Your task to perform on an android device: find which apps use the phone's location Image 0: 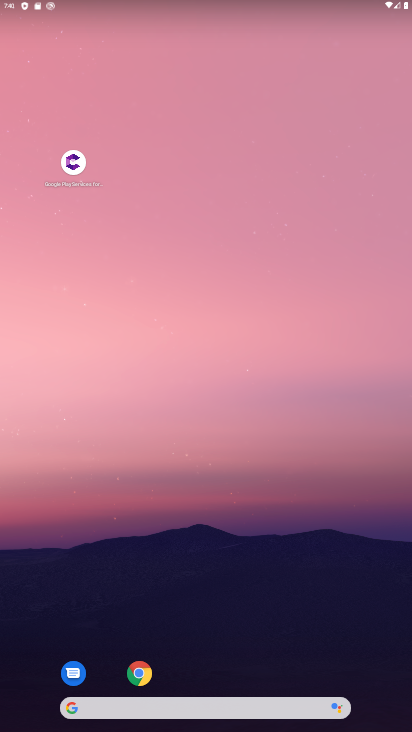
Step 0: drag from (177, 585) to (176, 320)
Your task to perform on an android device: find which apps use the phone's location Image 1: 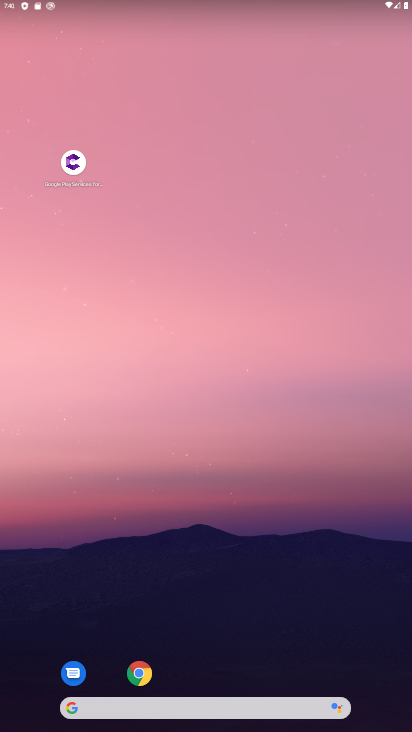
Step 1: drag from (185, 428) to (197, 16)
Your task to perform on an android device: find which apps use the phone's location Image 2: 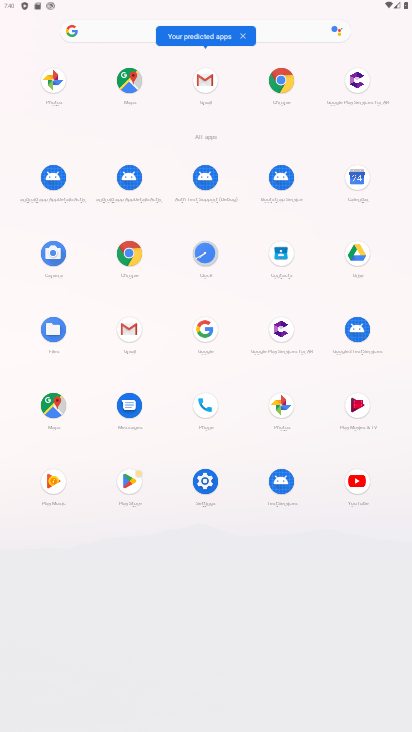
Step 2: click (201, 480)
Your task to perform on an android device: find which apps use the phone's location Image 3: 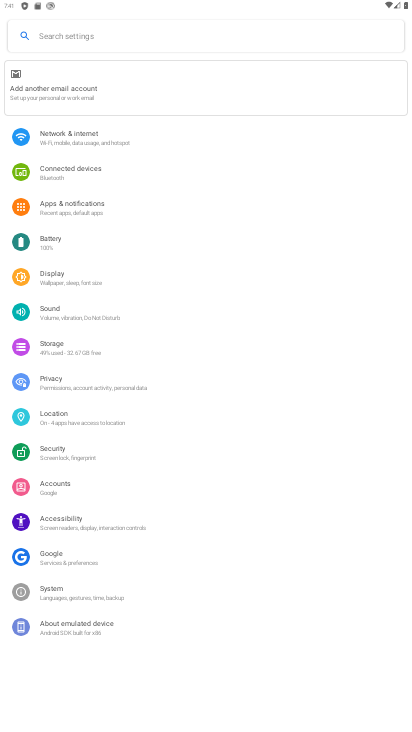
Step 3: click (28, 403)
Your task to perform on an android device: find which apps use the phone's location Image 4: 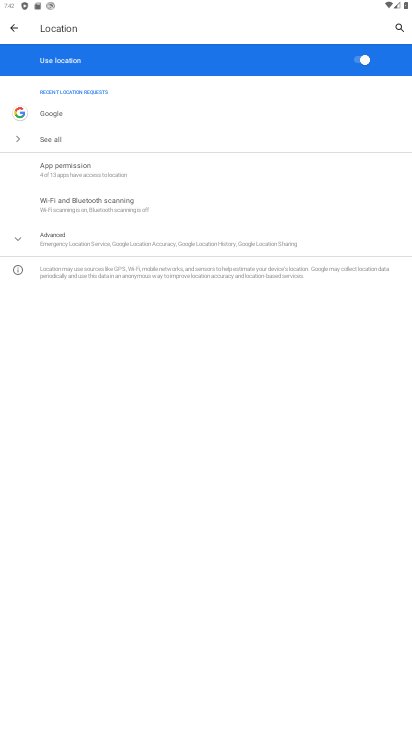
Step 4: click (51, 170)
Your task to perform on an android device: find which apps use the phone's location Image 5: 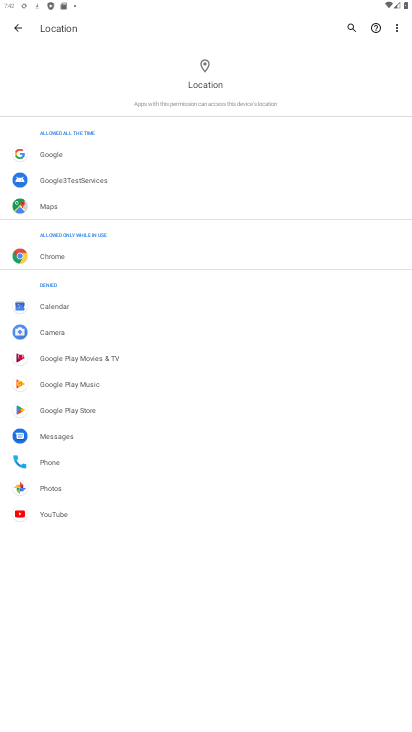
Step 5: task complete